Your task to perform on an android device: Open the web browser Image 0: 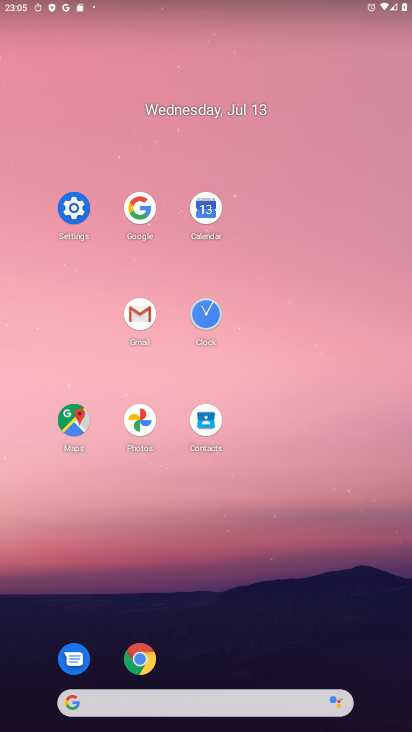
Step 0: click (140, 651)
Your task to perform on an android device: Open the web browser Image 1: 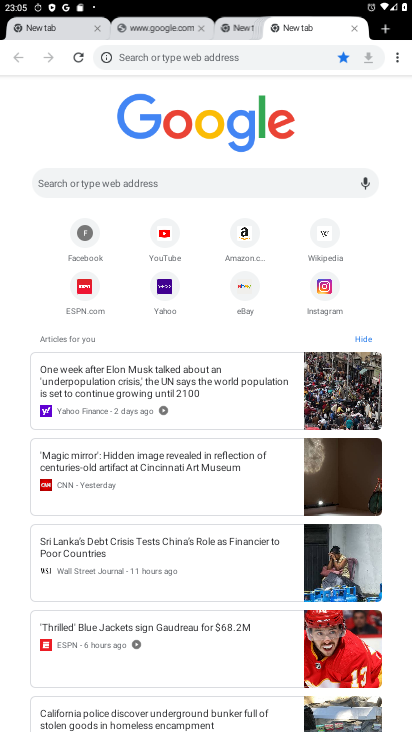
Step 1: task complete